Your task to perform on an android device: What is the recent news? Image 0: 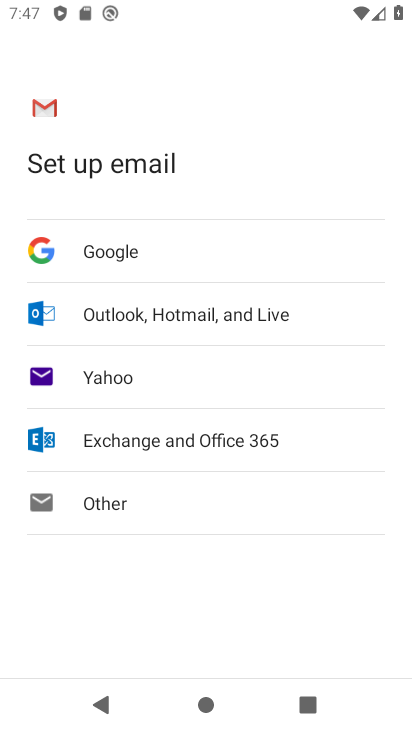
Step 0: press home button
Your task to perform on an android device: What is the recent news? Image 1: 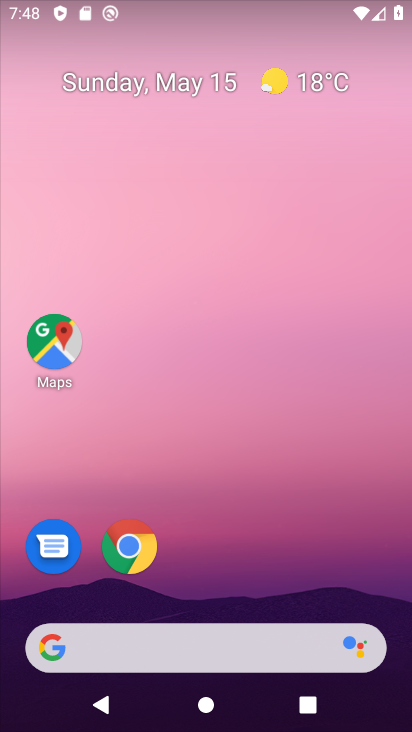
Step 1: task complete